Your task to perform on an android device: Toggle the flashlight Image 0: 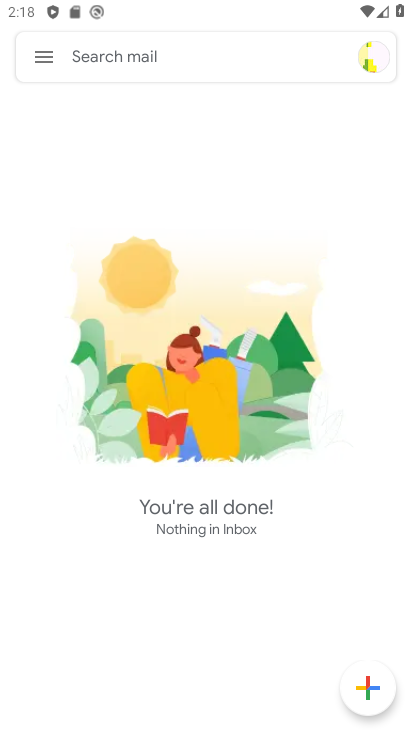
Step 0: press home button
Your task to perform on an android device: Toggle the flashlight Image 1: 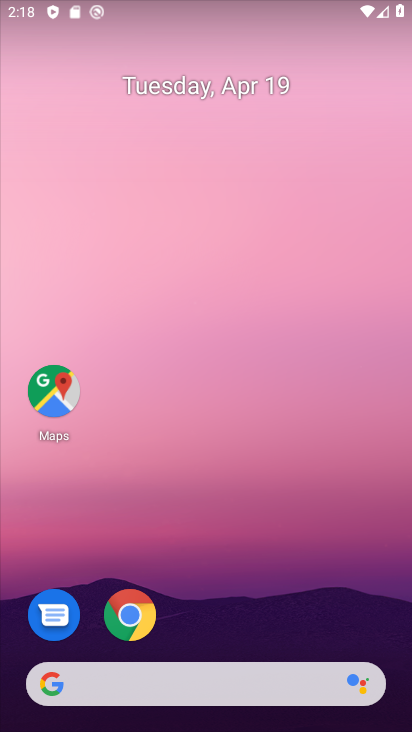
Step 1: drag from (232, 594) to (254, 188)
Your task to perform on an android device: Toggle the flashlight Image 2: 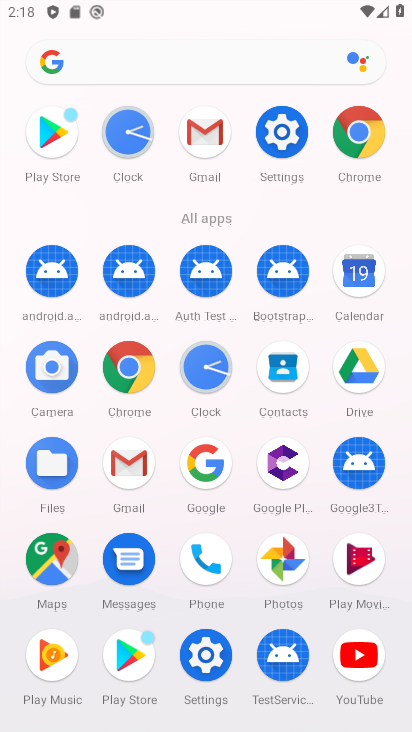
Step 2: click (208, 649)
Your task to perform on an android device: Toggle the flashlight Image 3: 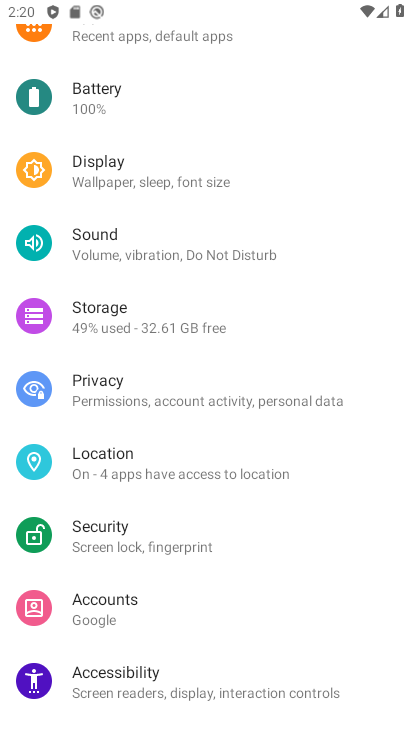
Step 3: task complete